Your task to perform on an android device: turn off notifications settings in the gmail app Image 0: 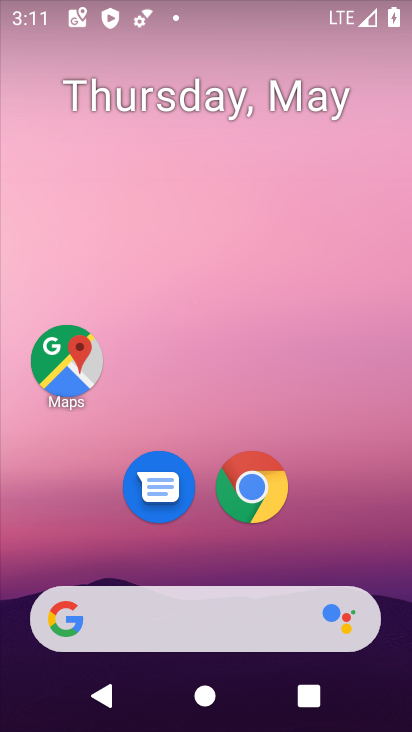
Step 0: drag from (230, 556) to (294, 141)
Your task to perform on an android device: turn off notifications settings in the gmail app Image 1: 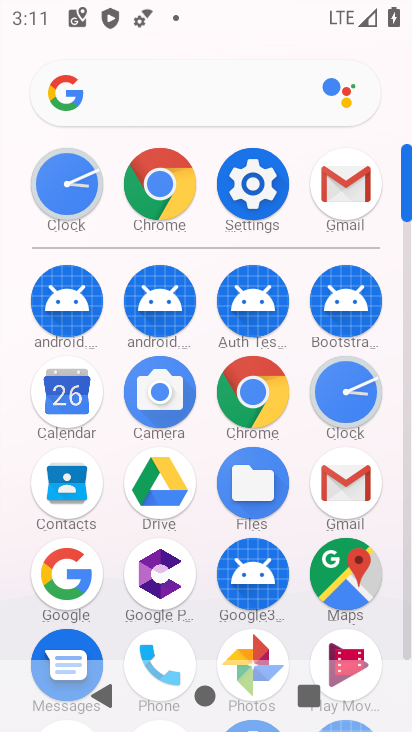
Step 1: click (358, 476)
Your task to perform on an android device: turn off notifications settings in the gmail app Image 2: 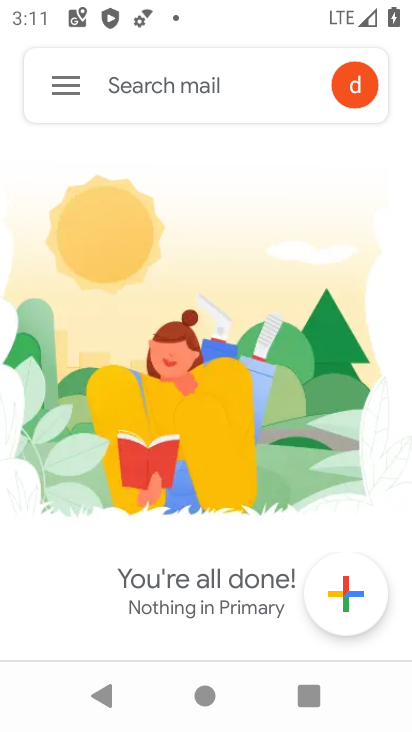
Step 2: click (63, 96)
Your task to perform on an android device: turn off notifications settings in the gmail app Image 3: 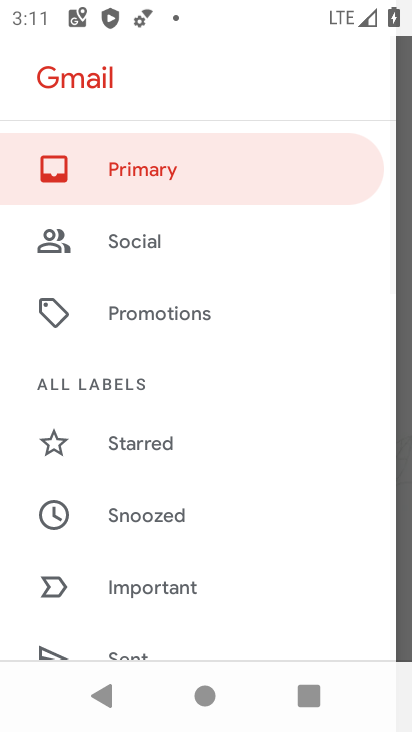
Step 3: drag from (180, 266) to (207, 157)
Your task to perform on an android device: turn off notifications settings in the gmail app Image 4: 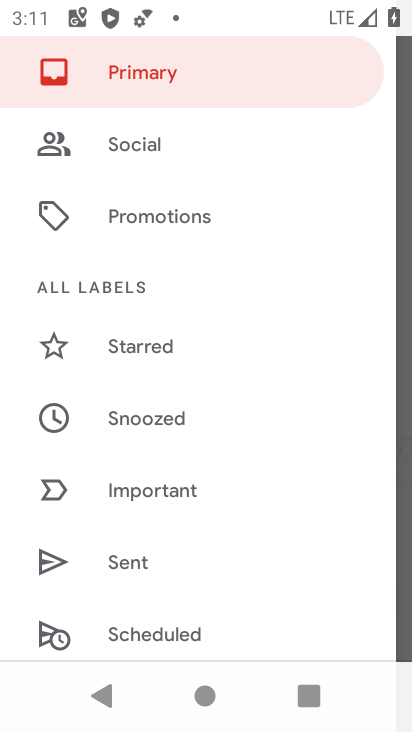
Step 4: drag from (190, 484) to (239, 224)
Your task to perform on an android device: turn off notifications settings in the gmail app Image 5: 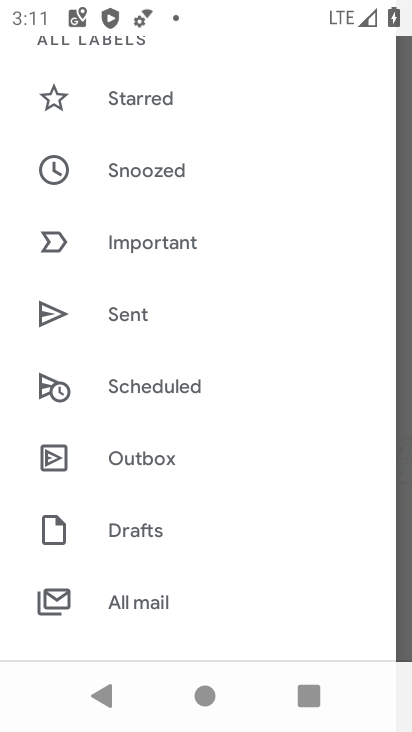
Step 5: drag from (196, 463) to (259, 223)
Your task to perform on an android device: turn off notifications settings in the gmail app Image 6: 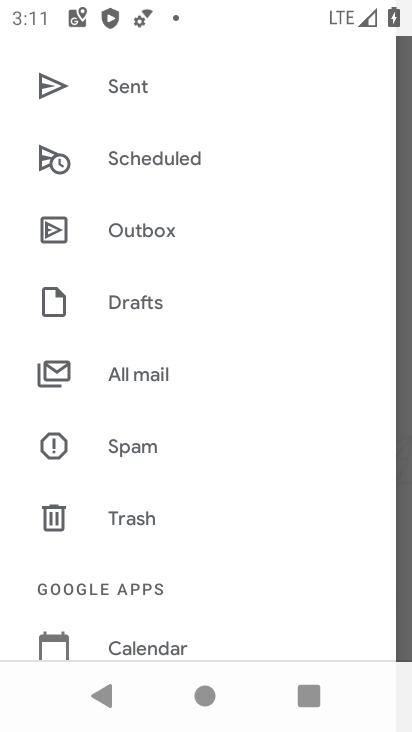
Step 6: drag from (188, 519) to (268, 201)
Your task to perform on an android device: turn off notifications settings in the gmail app Image 7: 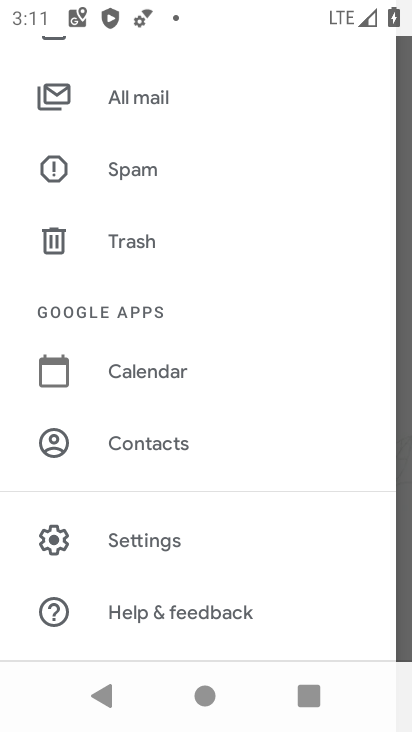
Step 7: drag from (180, 551) to (231, 269)
Your task to perform on an android device: turn off notifications settings in the gmail app Image 8: 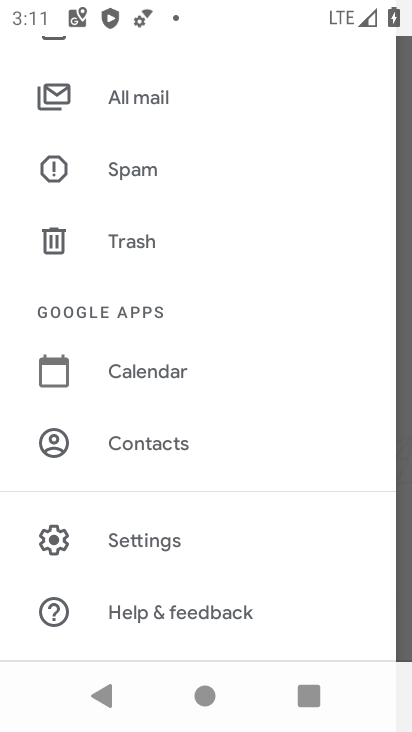
Step 8: click (171, 544)
Your task to perform on an android device: turn off notifications settings in the gmail app Image 9: 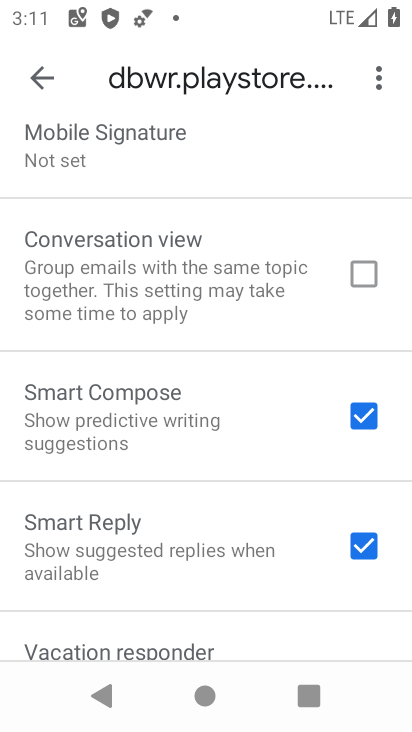
Step 9: click (43, 75)
Your task to perform on an android device: turn off notifications settings in the gmail app Image 10: 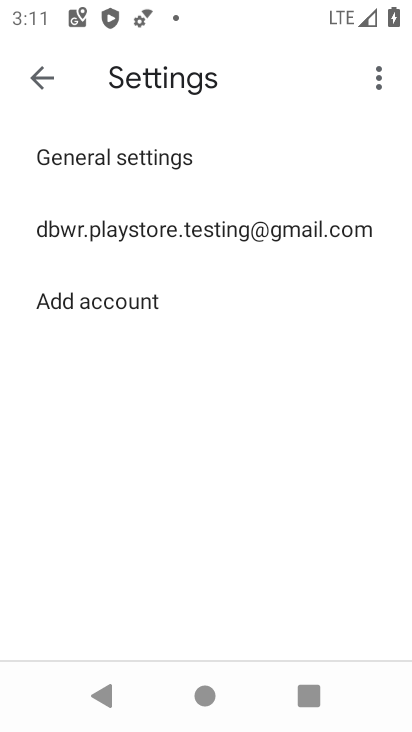
Step 10: click (158, 156)
Your task to perform on an android device: turn off notifications settings in the gmail app Image 11: 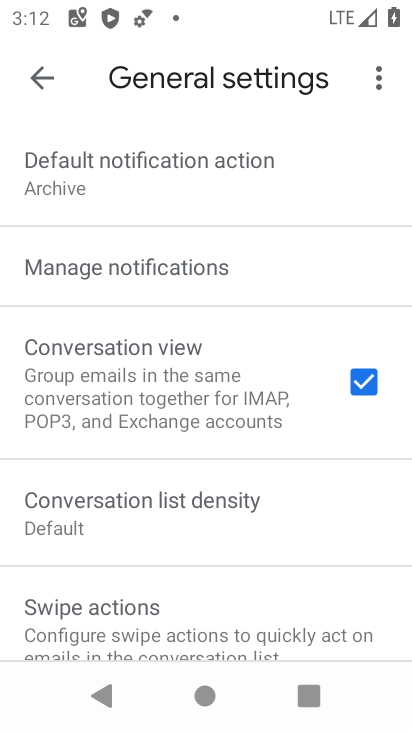
Step 11: click (149, 265)
Your task to perform on an android device: turn off notifications settings in the gmail app Image 12: 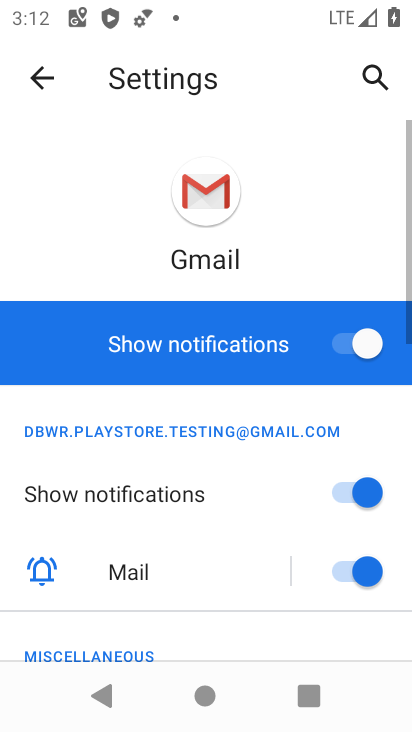
Step 12: click (350, 360)
Your task to perform on an android device: turn off notifications settings in the gmail app Image 13: 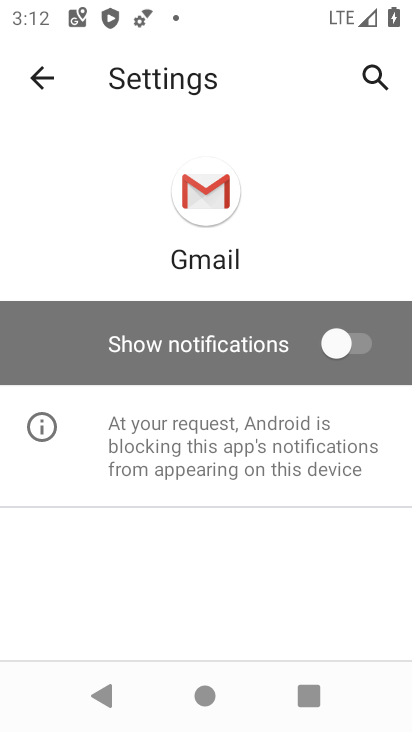
Step 13: task complete